Your task to perform on an android device: Open Youtube and go to the subscriptions tab Image 0: 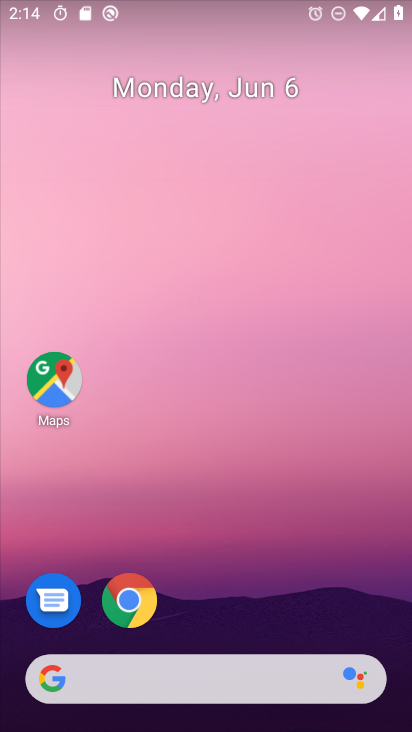
Step 0: drag from (211, 608) to (185, 216)
Your task to perform on an android device: Open Youtube and go to the subscriptions tab Image 1: 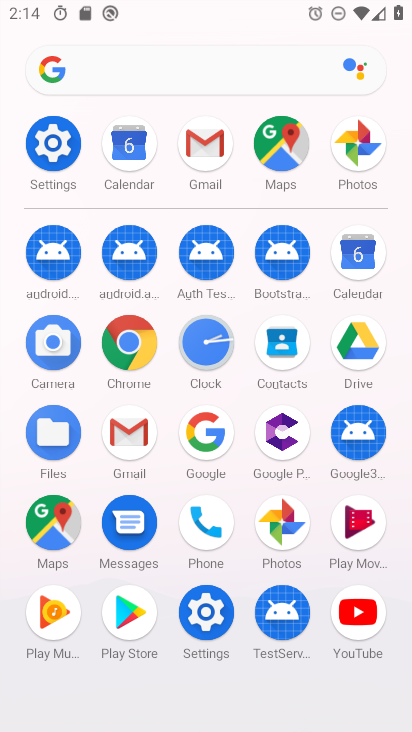
Step 1: click (361, 622)
Your task to perform on an android device: Open Youtube and go to the subscriptions tab Image 2: 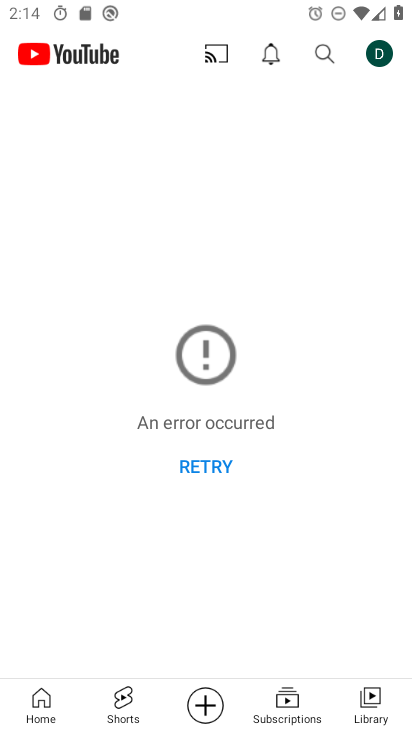
Step 2: click (284, 709)
Your task to perform on an android device: Open Youtube and go to the subscriptions tab Image 3: 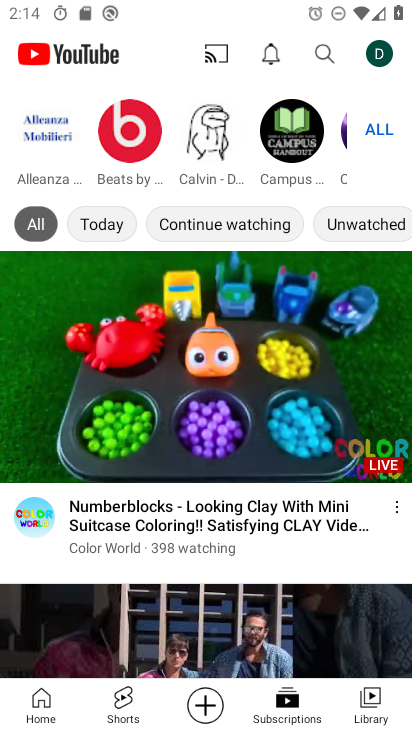
Step 3: task complete